Your task to perform on an android device: show emergency info Image 0: 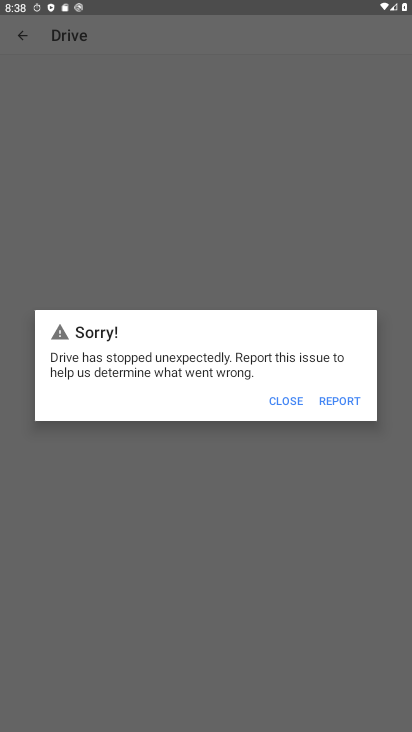
Step 0: press home button
Your task to perform on an android device: show emergency info Image 1: 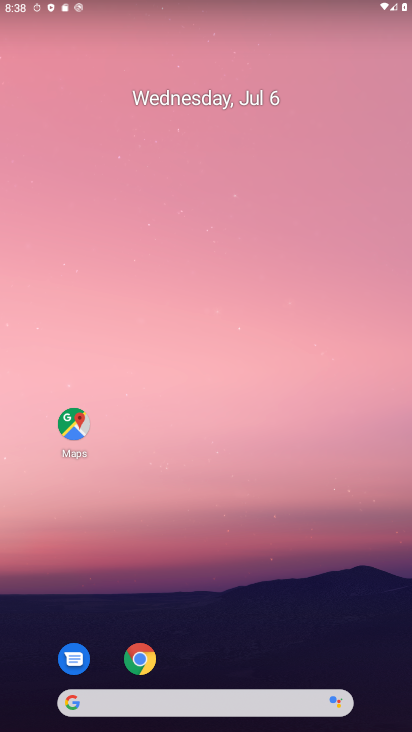
Step 1: drag from (295, 645) to (321, 133)
Your task to perform on an android device: show emergency info Image 2: 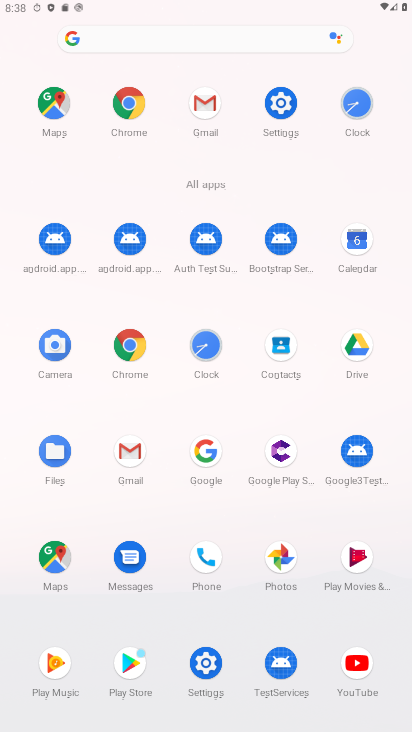
Step 2: click (283, 108)
Your task to perform on an android device: show emergency info Image 3: 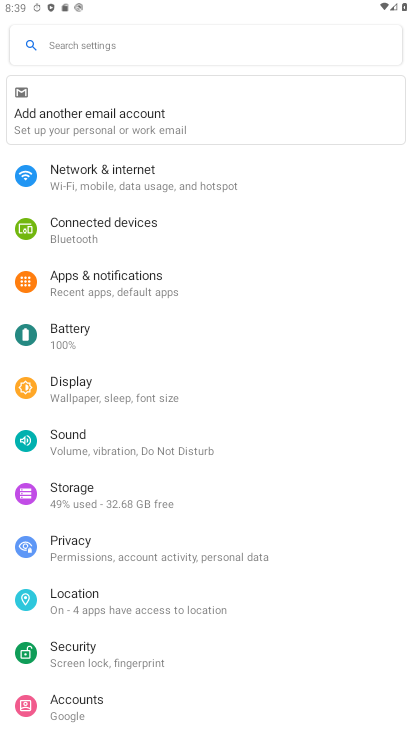
Step 3: drag from (314, 461) to (322, 348)
Your task to perform on an android device: show emergency info Image 4: 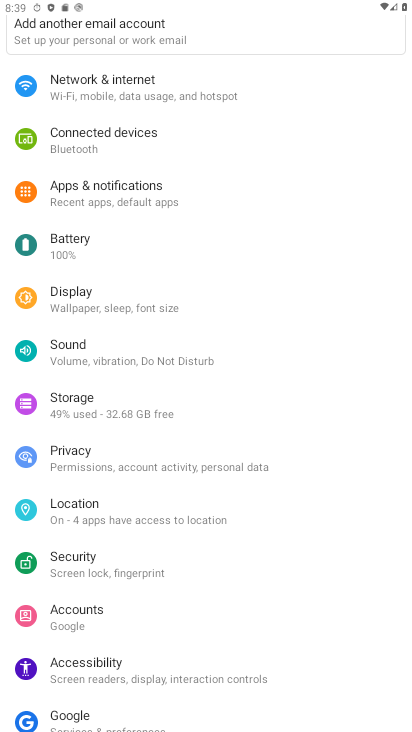
Step 4: drag from (332, 524) to (333, 420)
Your task to perform on an android device: show emergency info Image 5: 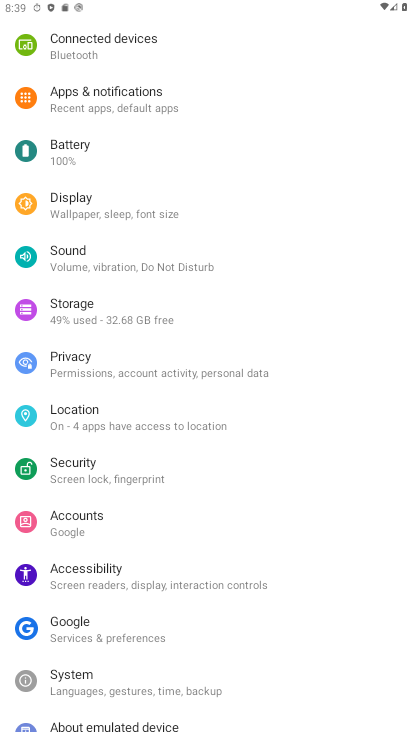
Step 5: drag from (341, 577) to (322, 303)
Your task to perform on an android device: show emergency info Image 6: 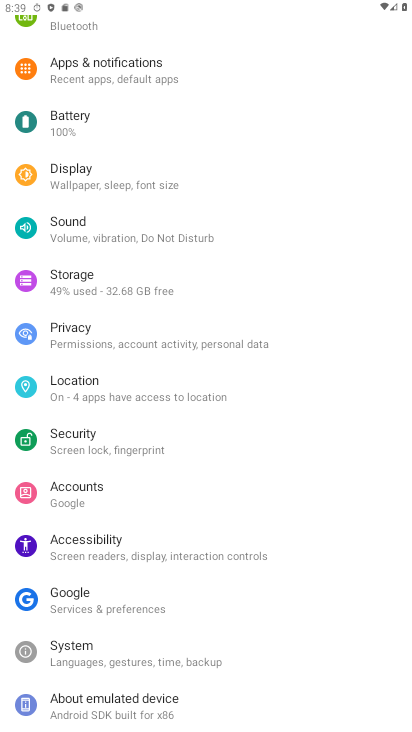
Step 6: click (184, 704)
Your task to perform on an android device: show emergency info Image 7: 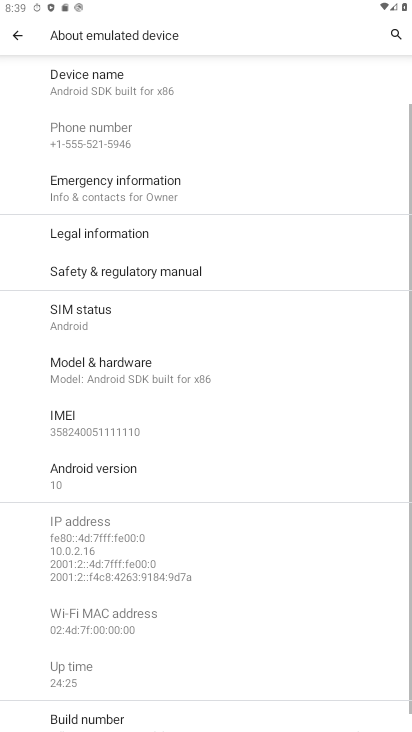
Step 7: drag from (302, 593) to (306, 416)
Your task to perform on an android device: show emergency info Image 8: 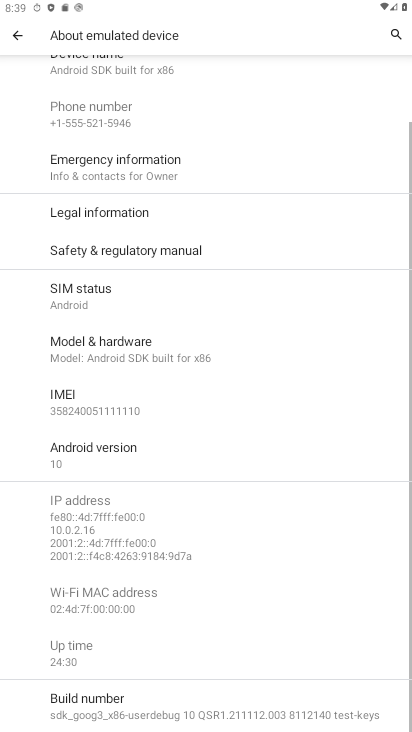
Step 8: click (238, 162)
Your task to perform on an android device: show emergency info Image 9: 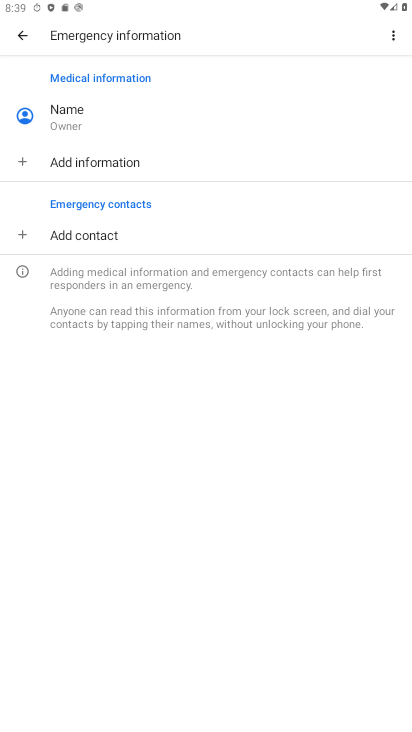
Step 9: task complete